Your task to perform on an android device: turn on wifi Image 0: 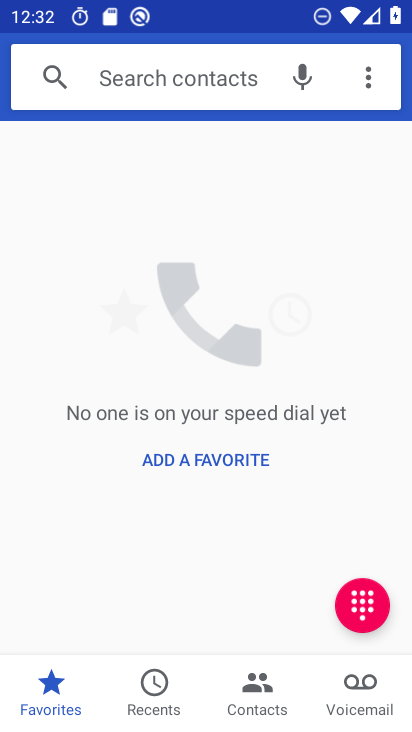
Step 0: press home button
Your task to perform on an android device: turn on wifi Image 1: 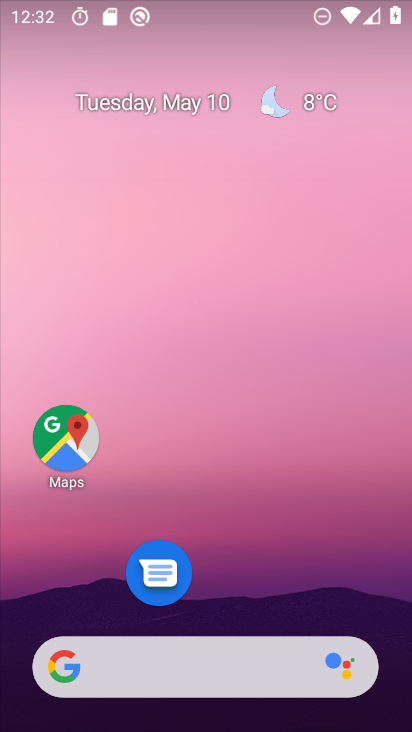
Step 1: drag from (214, 583) to (273, 9)
Your task to perform on an android device: turn on wifi Image 2: 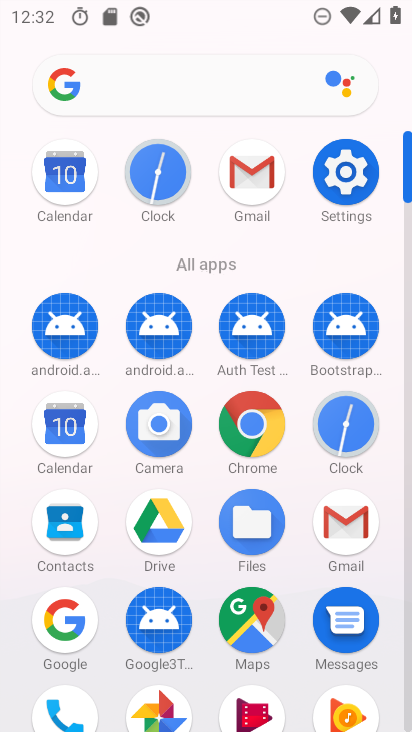
Step 2: click (327, 200)
Your task to perform on an android device: turn on wifi Image 3: 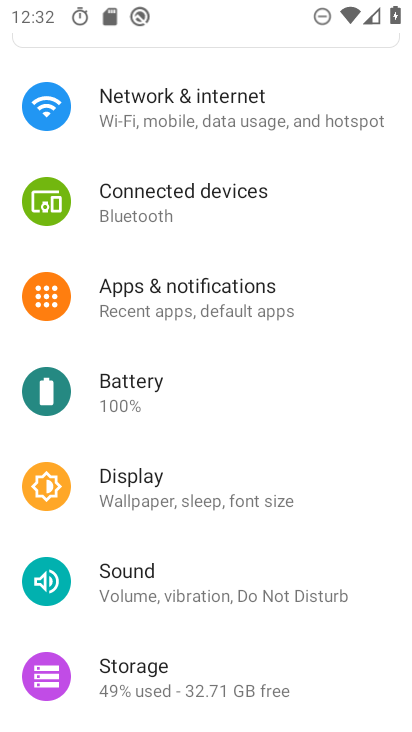
Step 3: drag from (244, 206) to (241, 669)
Your task to perform on an android device: turn on wifi Image 4: 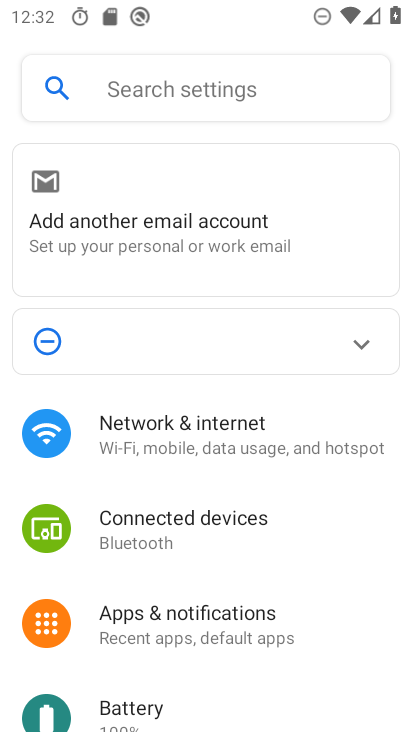
Step 4: click (127, 445)
Your task to perform on an android device: turn on wifi Image 5: 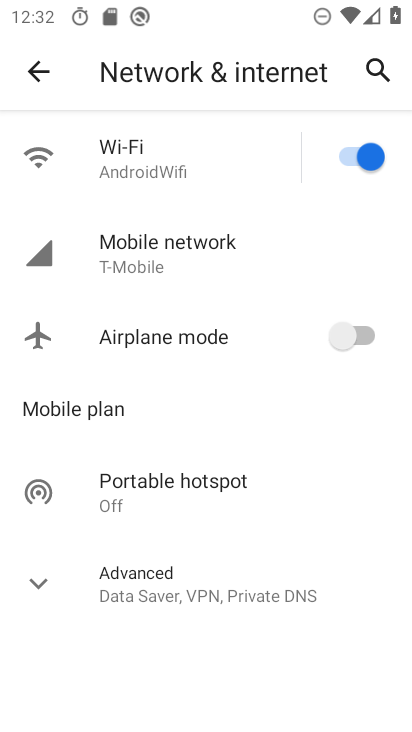
Step 5: task complete